Your task to perform on an android device: change notification settings in the gmail app Image 0: 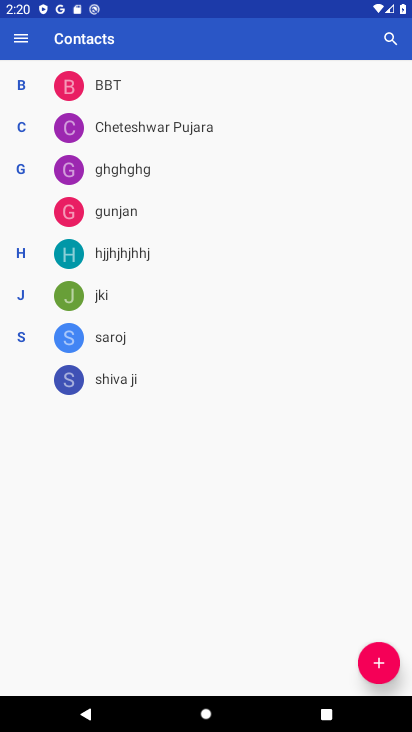
Step 0: press home button
Your task to perform on an android device: change notification settings in the gmail app Image 1: 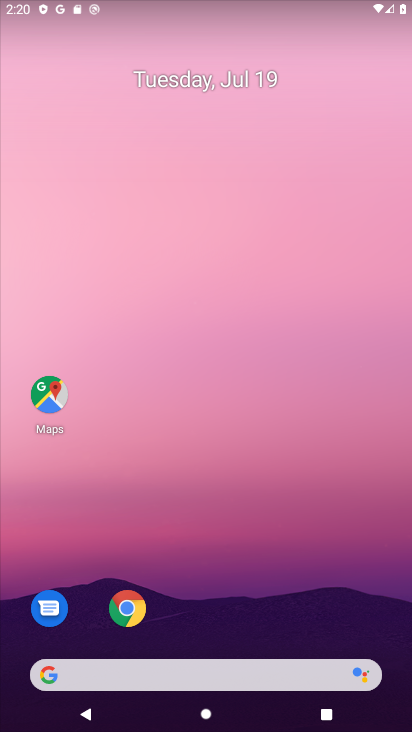
Step 1: drag from (179, 364) to (197, 77)
Your task to perform on an android device: change notification settings in the gmail app Image 2: 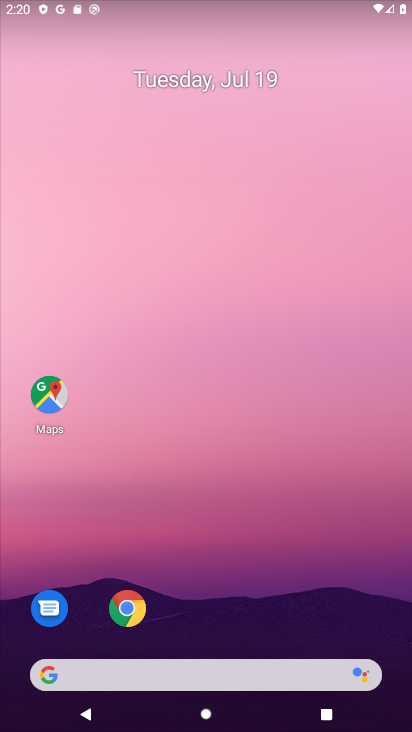
Step 2: drag from (322, 559) to (313, 26)
Your task to perform on an android device: change notification settings in the gmail app Image 3: 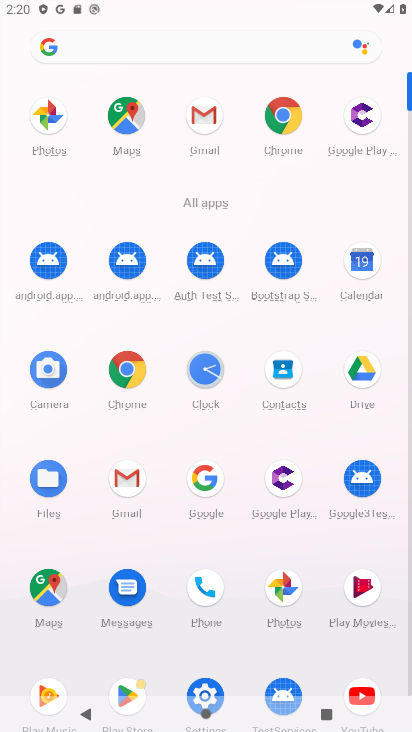
Step 3: click (197, 116)
Your task to perform on an android device: change notification settings in the gmail app Image 4: 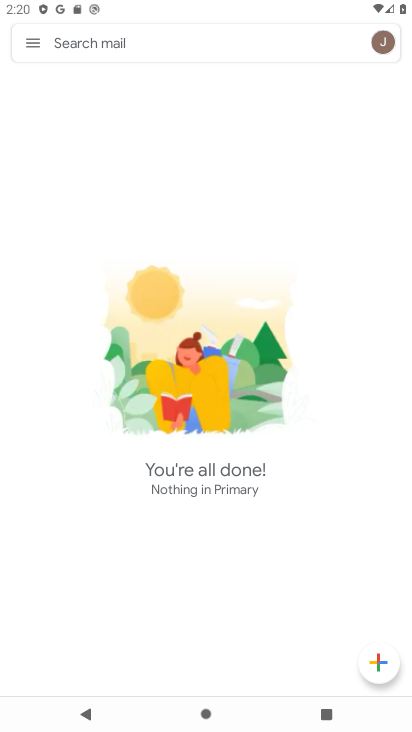
Step 4: click (40, 49)
Your task to perform on an android device: change notification settings in the gmail app Image 5: 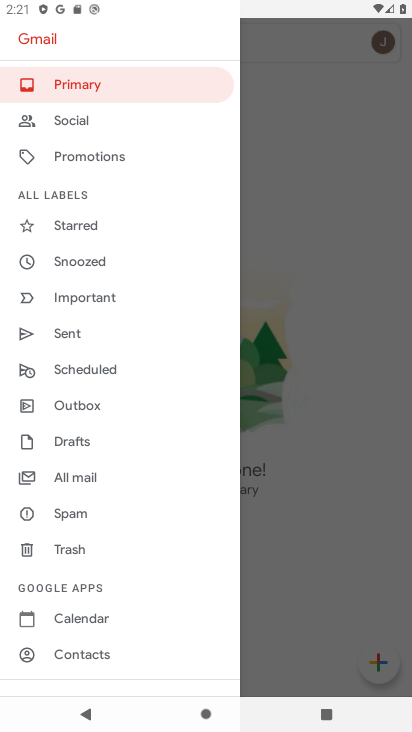
Step 5: drag from (130, 614) to (155, 205)
Your task to perform on an android device: change notification settings in the gmail app Image 6: 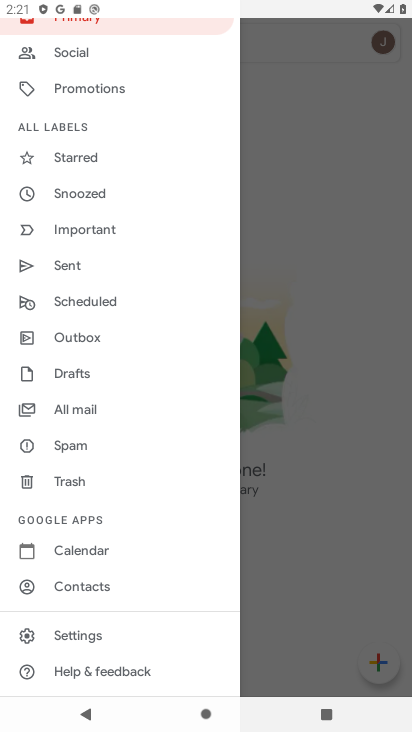
Step 6: click (79, 627)
Your task to perform on an android device: change notification settings in the gmail app Image 7: 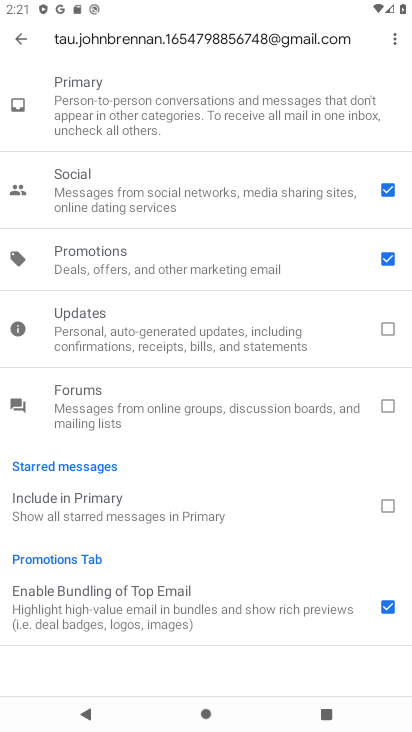
Step 7: click (18, 36)
Your task to perform on an android device: change notification settings in the gmail app Image 8: 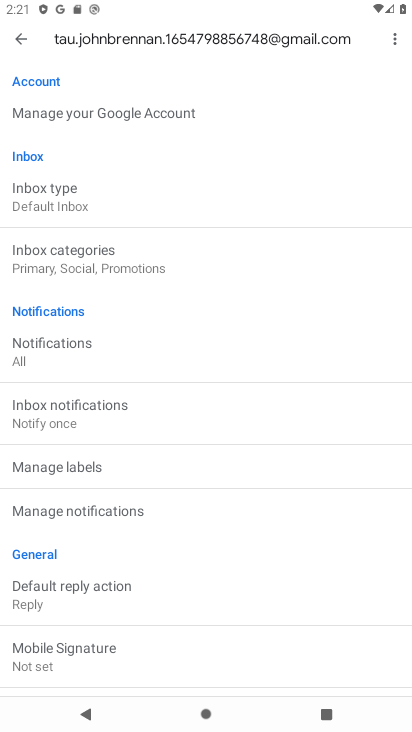
Step 8: click (81, 511)
Your task to perform on an android device: change notification settings in the gmail app Image 9: 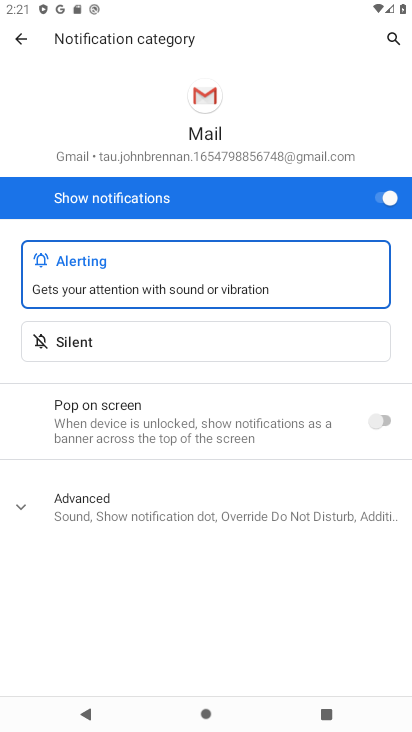
Step 9: click (376, 199)
Your task to perform on an android device: change notification settings in the gmail app Image 10: 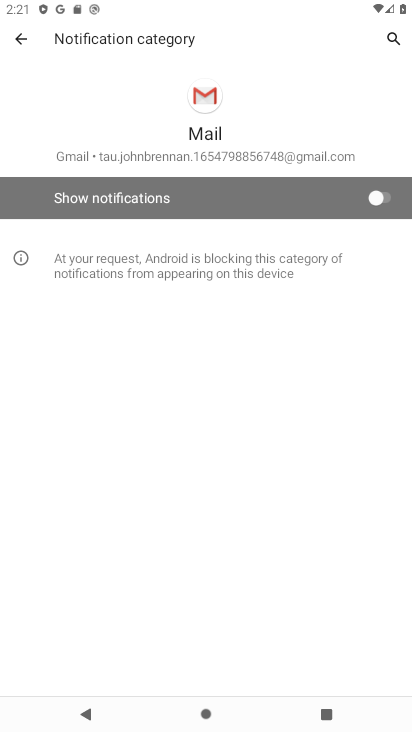
Step 10: task complete